Your task to perform on an android device: check the backup settings in the google photos Image 0: 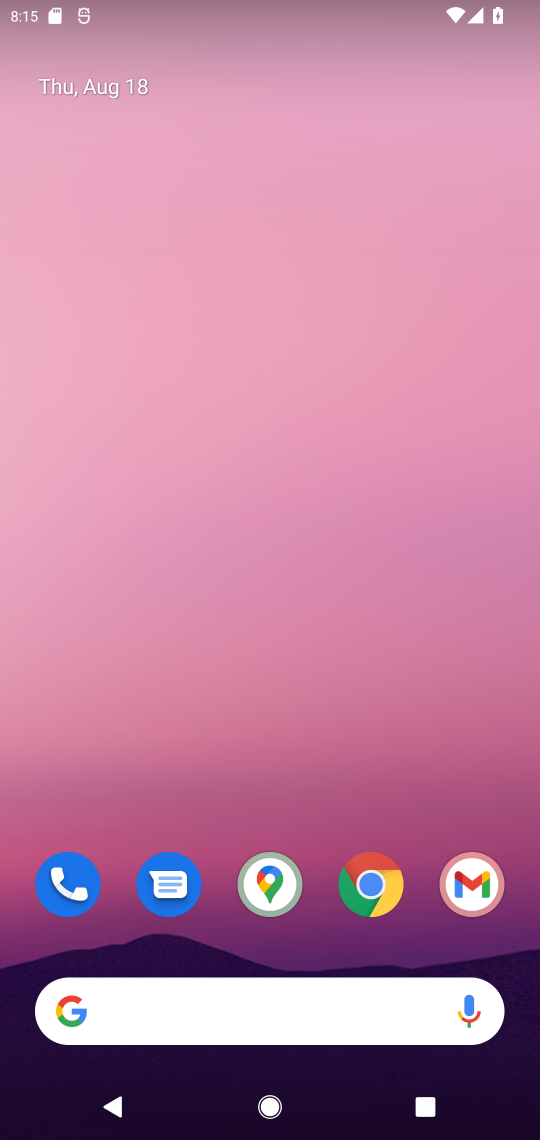
Step 0: drag from (297, 955) to (401, 8)
Your task to perform on an android device: check the backup settings in the google photos Image 1: 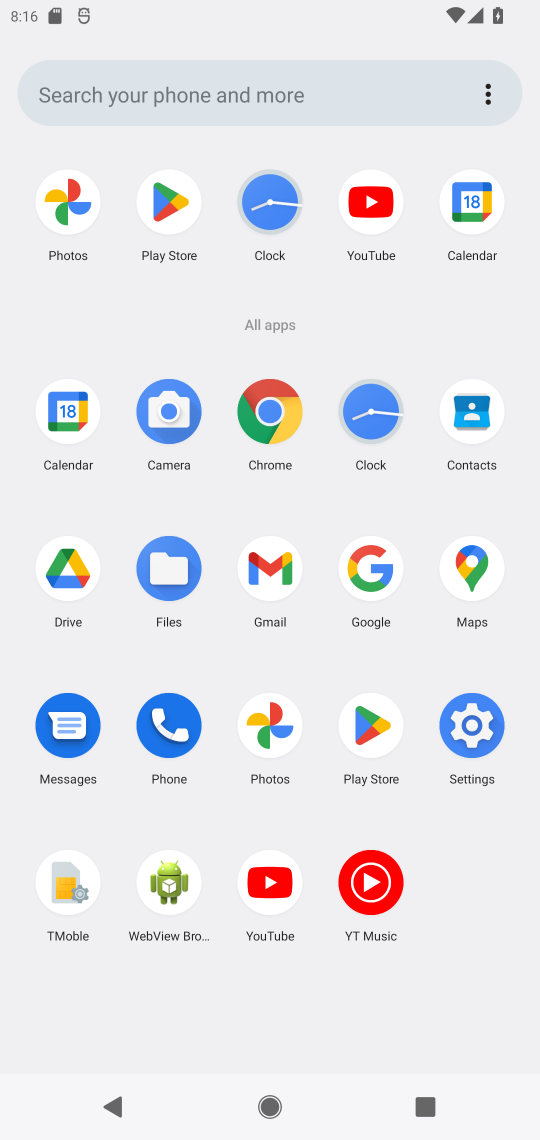
Step 1: click (46, 191)
Your task to perform on an android device: check the backup settings in the google photos Image 2: 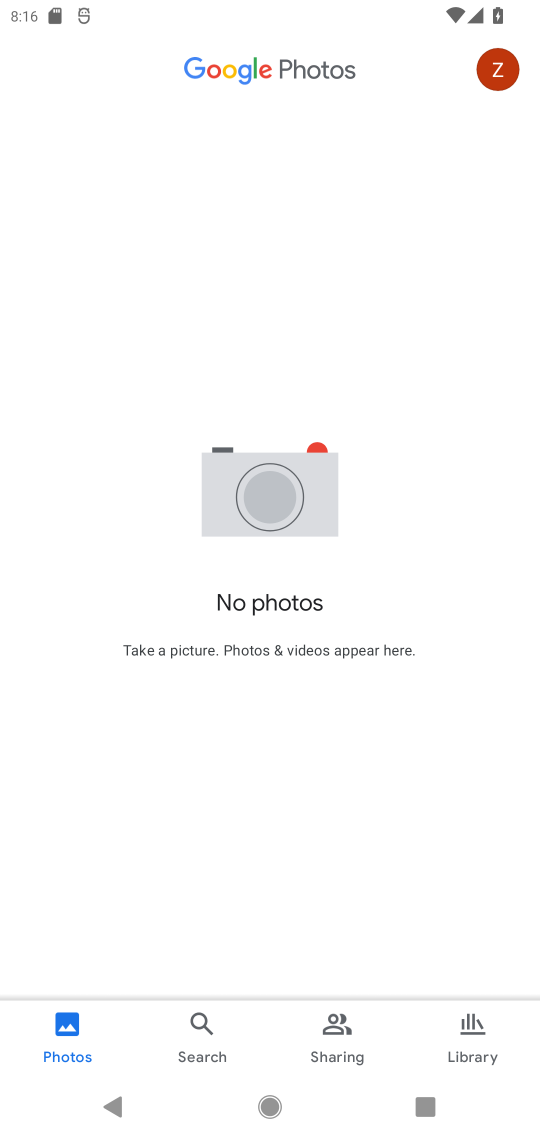
Step 2: click (502, 88)
Your task to perform on an android device: check the backup settings in the google photos Image 3: 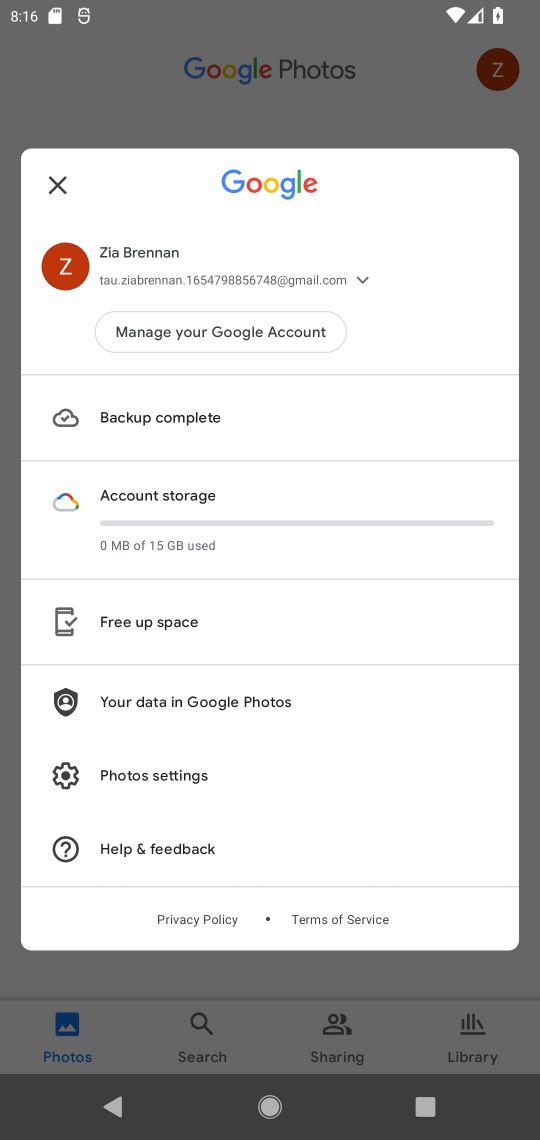
Step 3: click (277, 433)
Your task to perform on an android device: check the backup settings in the google photos Image 4: 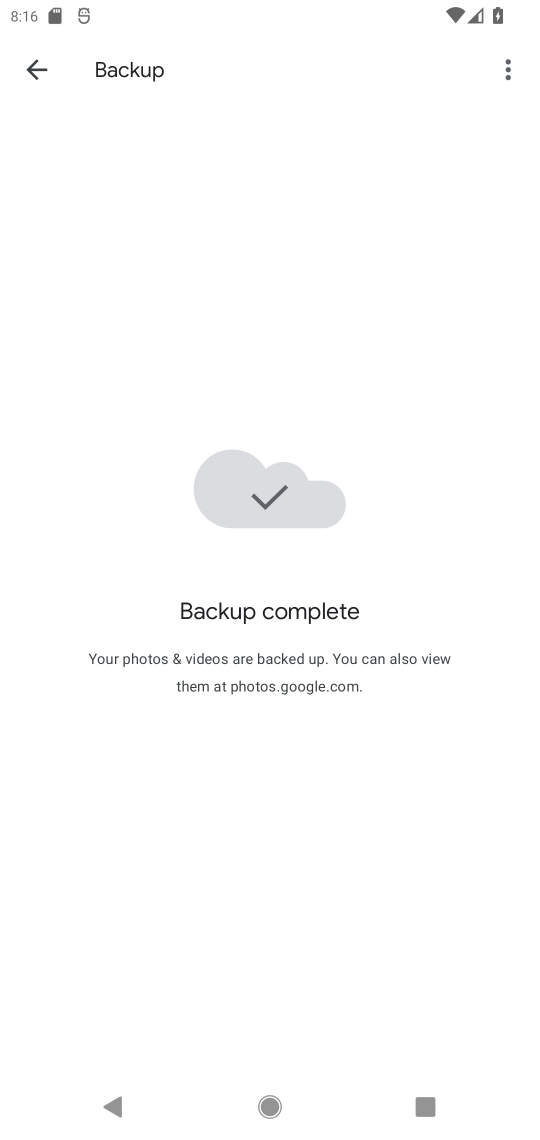
Step 4: task complete